Your task to perform on an android device: Open ESPN.com Image 0: 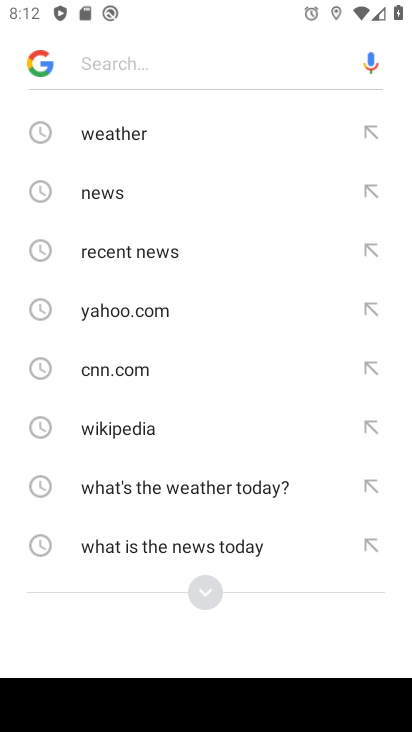
Step 0: press home button
Your task to perform on an android device: Open ESPN.com Image 1: 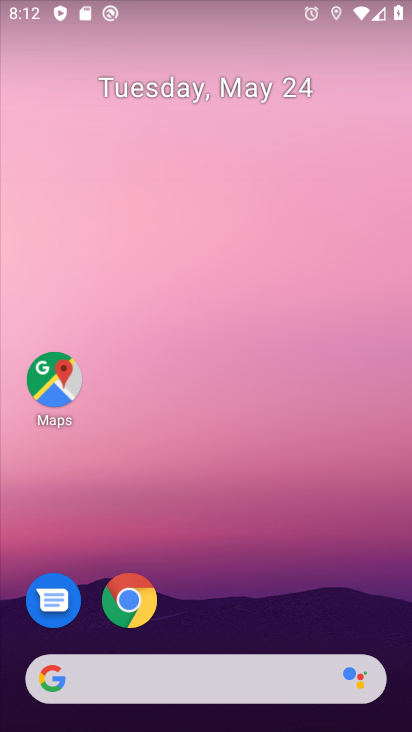
Step 1: click (129, 598)
Your task to perform on an android device: Open ESPN.com Image 2: 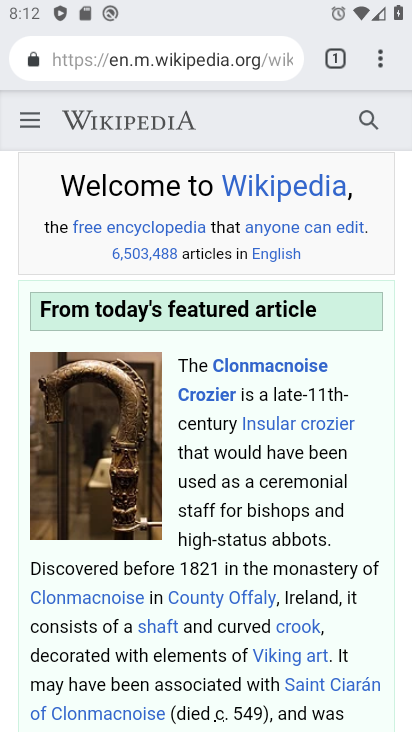
Step 2: click (381, 62)
Your task to perform on an android device: Open ESPN.com Image 3: 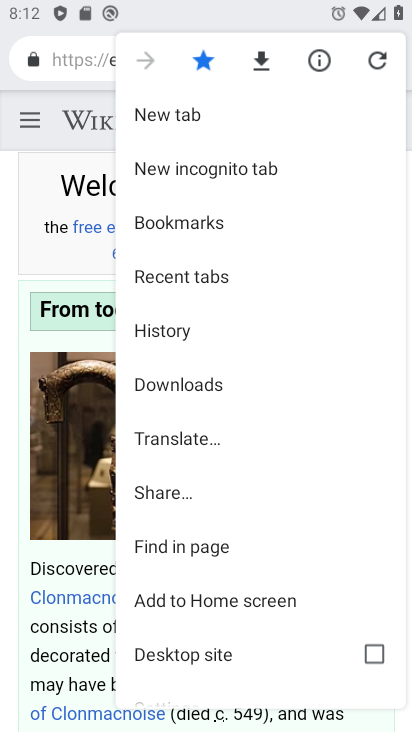
Step 3: click (186, 112)
Your task to perform on an android device: Open ESPN.com Image 4: 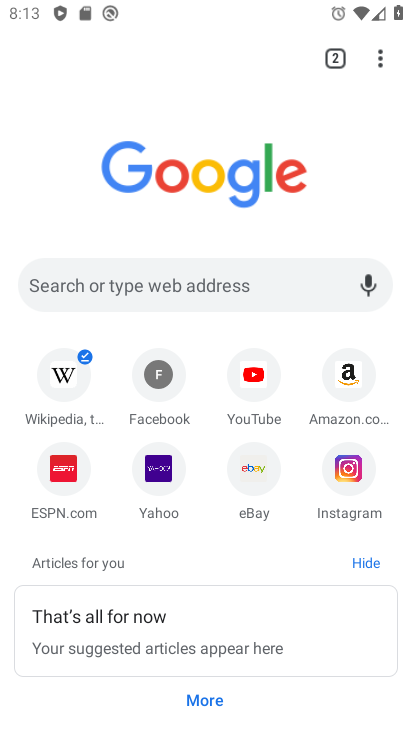
Step 4: click (63, 468)
Your task to perform on an android device: Open ESPN.com Image 5: 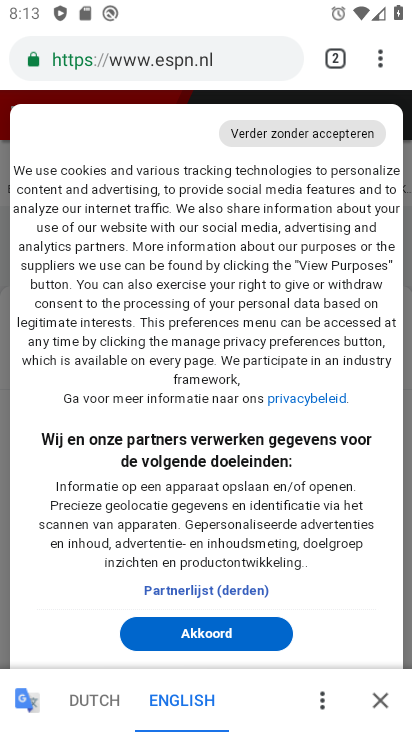
Step 5: drag from (272, 623) to (246, 291)
Your task to perform on an android device: Open ESPN.com Image 6: 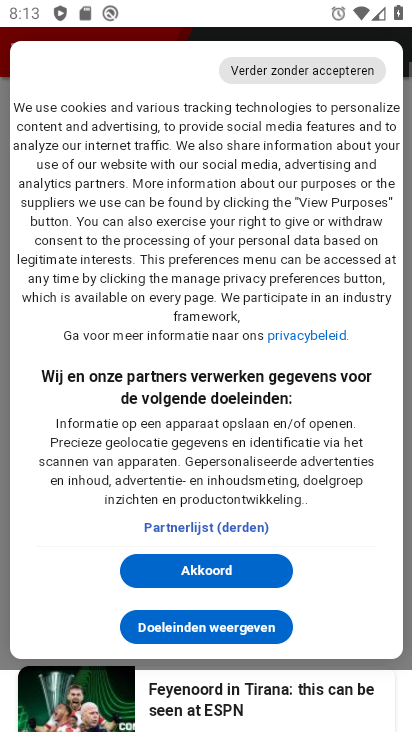
Step 6: click (200, 575)
Your task to perform on an android device: Open ESPN.com Image 7: 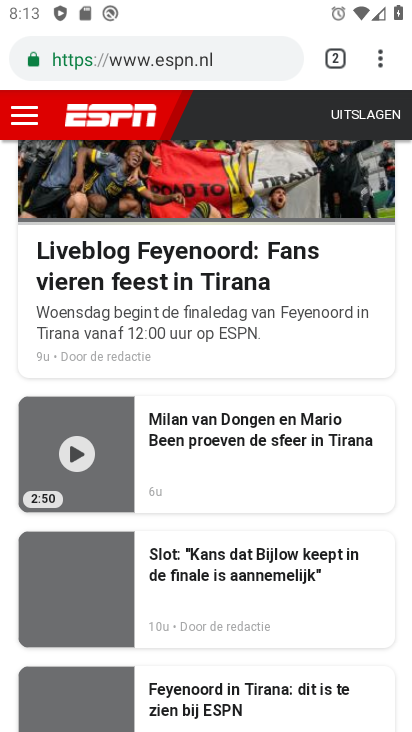
Step 7: task complete